Your task to perform on an android device: change the upload size in google photos Image 0: 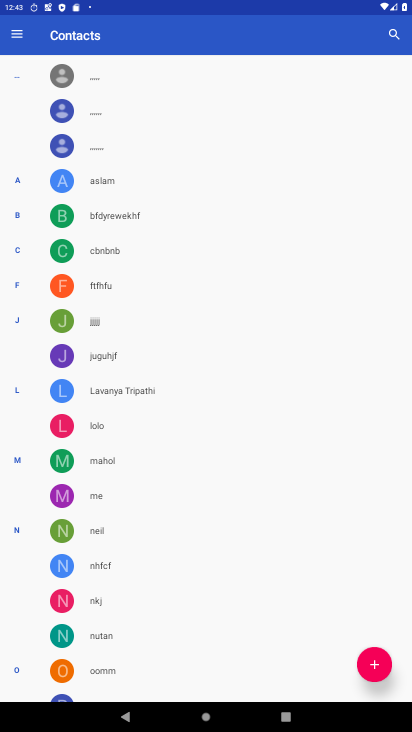
Step 0: press home button
Your task to perform on an android device: change the upload size in google photos Image 1: 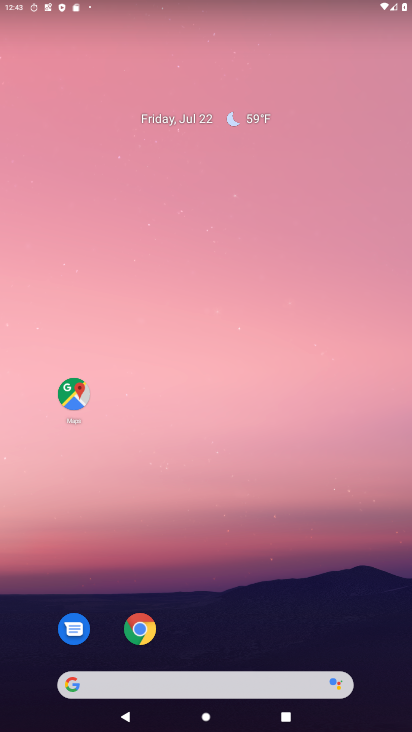
Step 1: drag from (223, 683) to (218, 97)
Your task to perform on an android device: change the upload size in google photos Image 2: 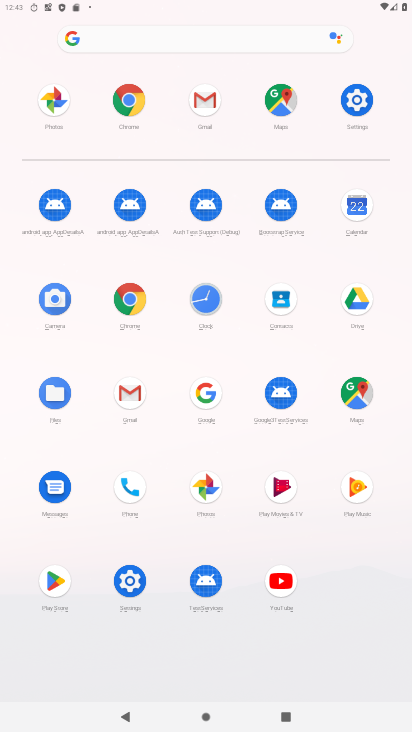
Step 2: click (206, 487)
Your task to perform on an android device: change the upload size in google photos Image 3: 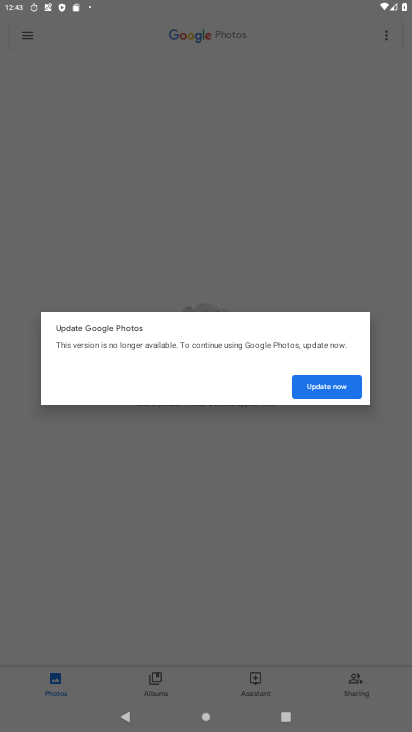
Step 3: click (327, 387)
Your task to perform on an android device: change the upload size in google photos Image 4: 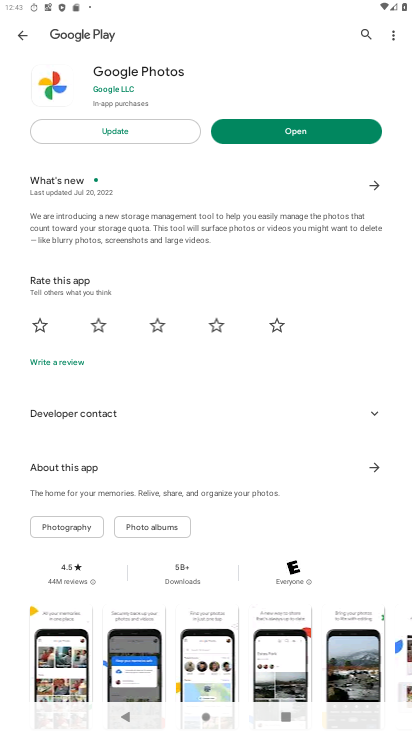
Step 4: click (137, 132)
Your task to perform on an android device: change the upload size in google photos Image 5: 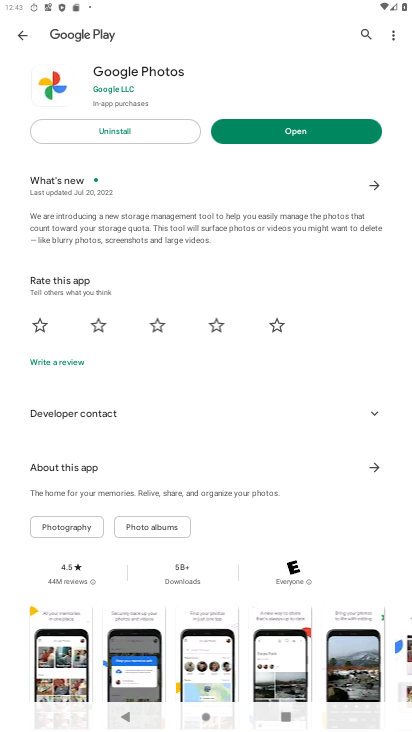
Step 5: click (281, 126)
Your task to perform on an android device: change the upload size in google photos Image 6: 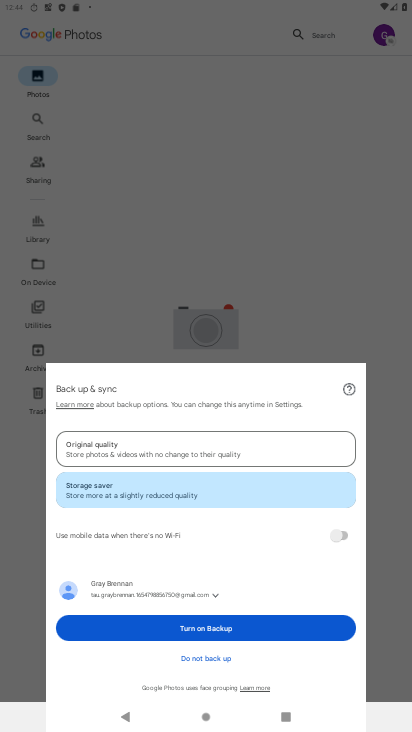
Step 6: click (235, 635)
Your task to perform on an android device: change the upload size in google photos Image 7: 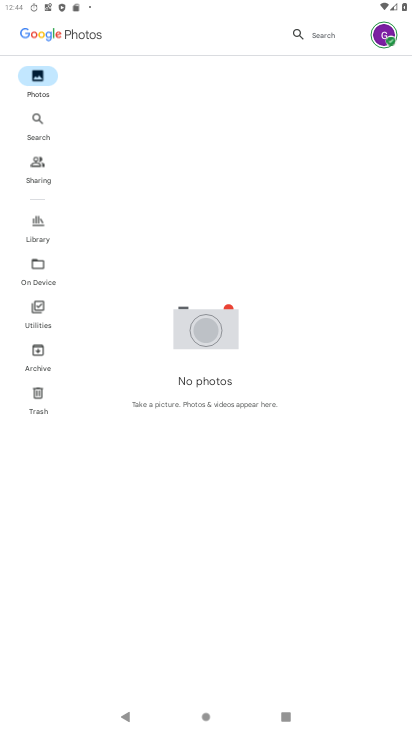
Step 7: click (386, 43)
Your task to perform on an android device: change the upload size in google photos Image 8: 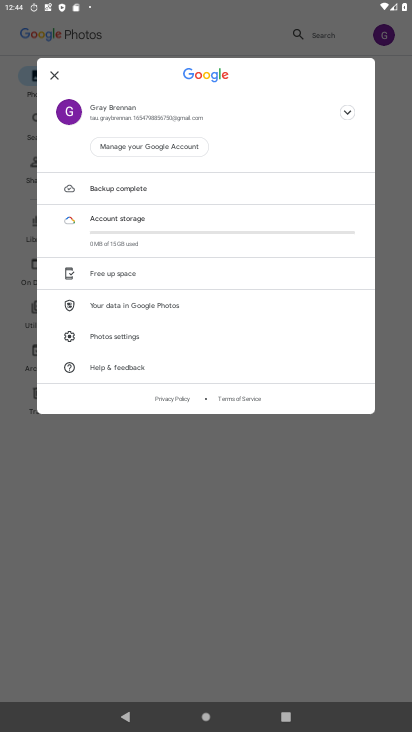
Step 8: click (134, 337)
Your task to perform on an android device: change the upload size in google photos Image 9: 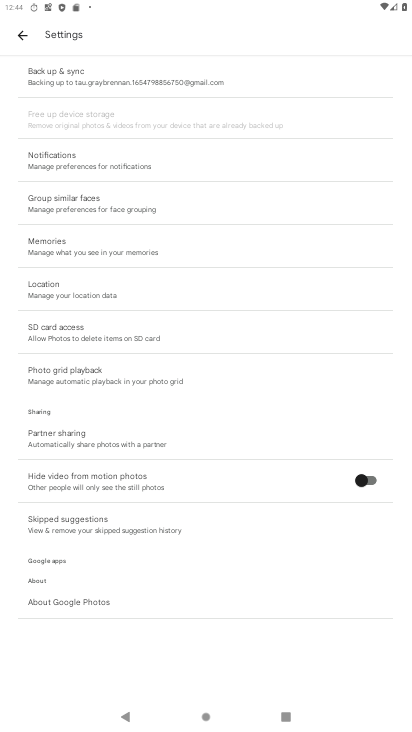
Step 9: click (58, 75)
Your task to perform on an android device: change the upload size in google photos Image 10: 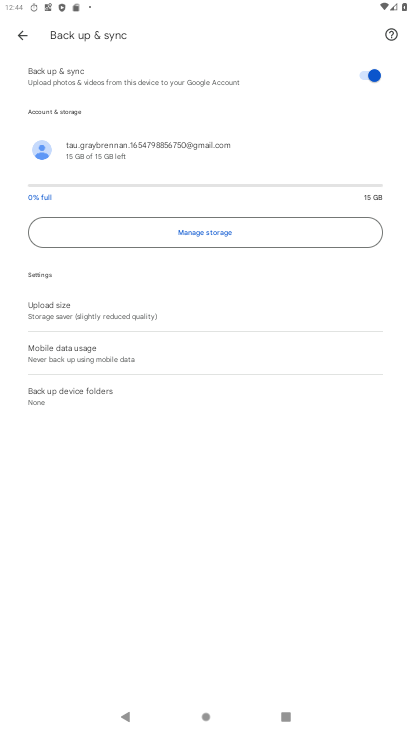
Step 10: click (73, 311)
Your task to perform on an android device: change the upload size in google photos Image 11: 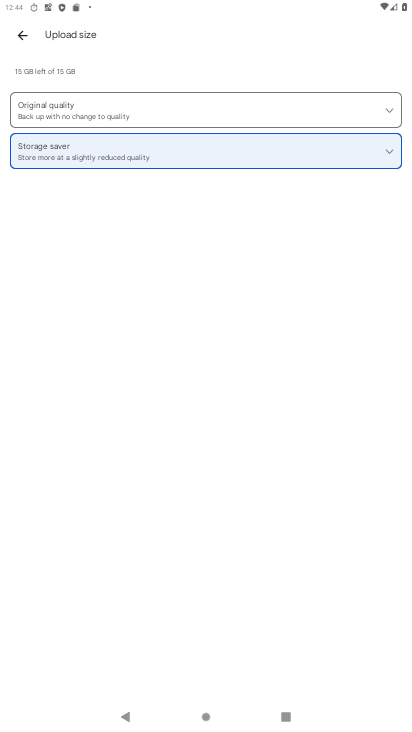
Step 11: click (81, 113)
Your task to perform on an android device: change the upload size in google photos Image 12: 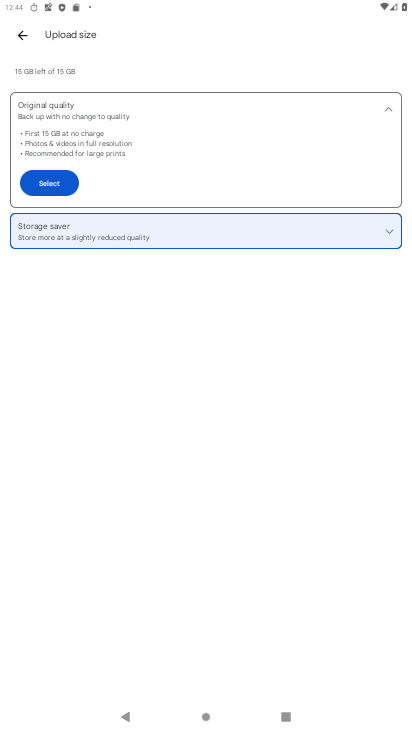
Step 12: click (42, 186)
Your task to perform on an android device: change the upload size in google photos Image 13: 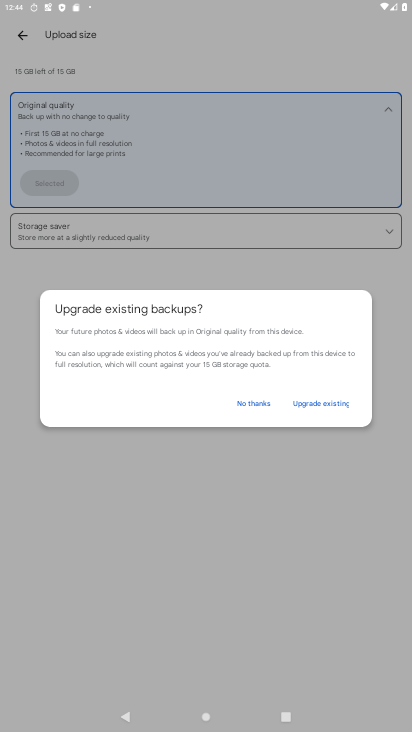
Step 13: click (323, 402)
Your task to perform on an android device: change the upload size in google photos Image 14: 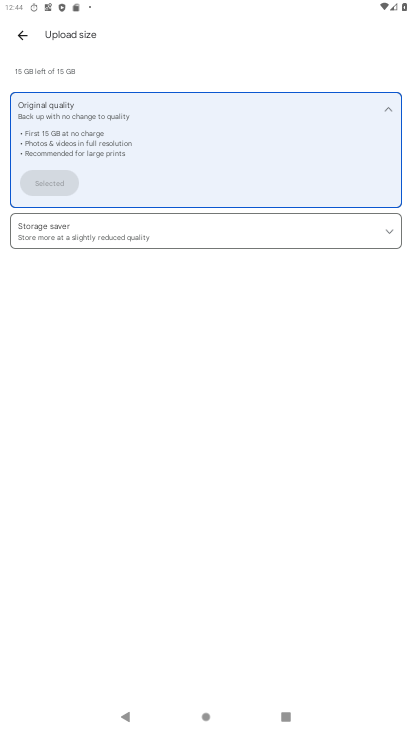
Step 14: task complete